Your task to perform on an android device: Open Yahoo.com Image 0: 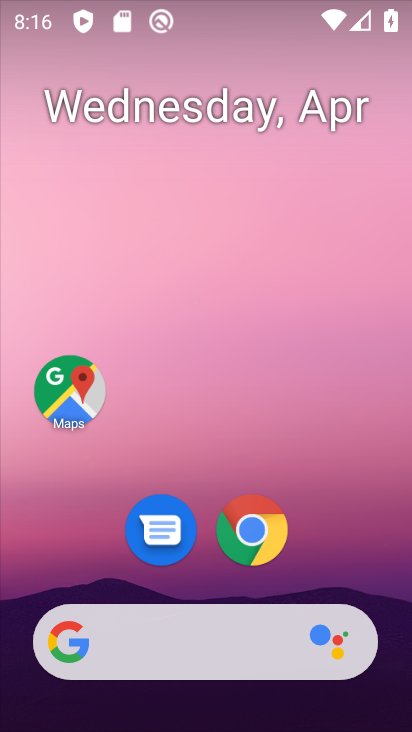
Step 0: click (245, 518)
Your task to perform on an android device: Open Yahoo.com Image 1: 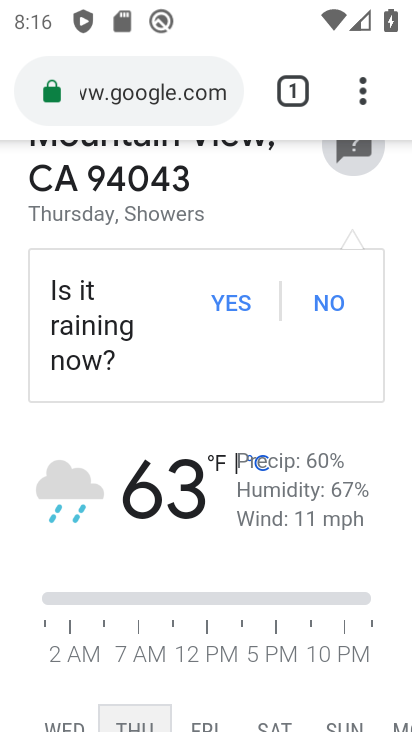
Step 1: click (301, 91)
Your task to perform on an android device: Open Yahoo.com Image 2: 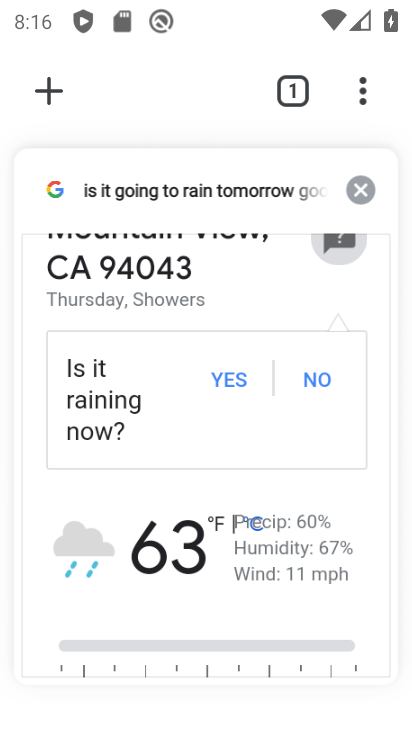
Step 2: click (61, 99)
Your task to perform on an android device: Open Yahoo.com Image 3: 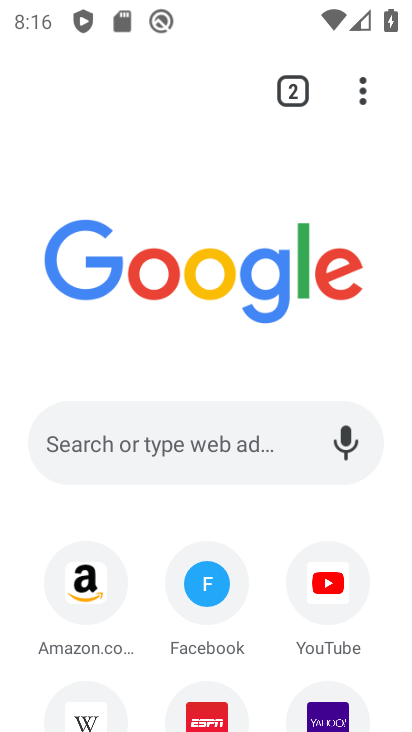
Step 3: click (346, 718)
Your task to perform on an android device: Open Yahoo.com Image 4: 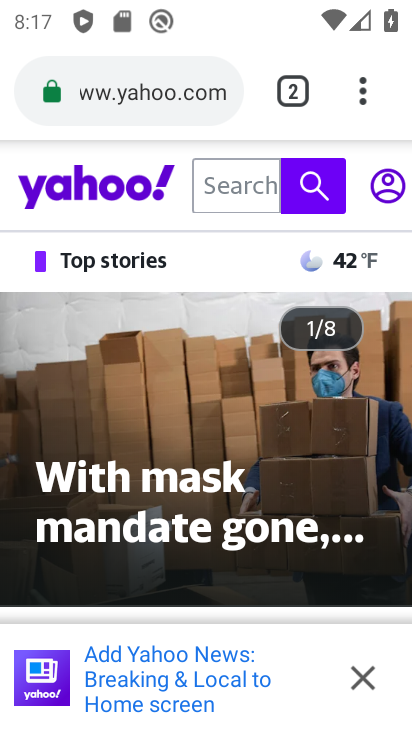
Step 4: task complete